Your task to perform on an android device: manage bookmarks in the chrome app Image 0: 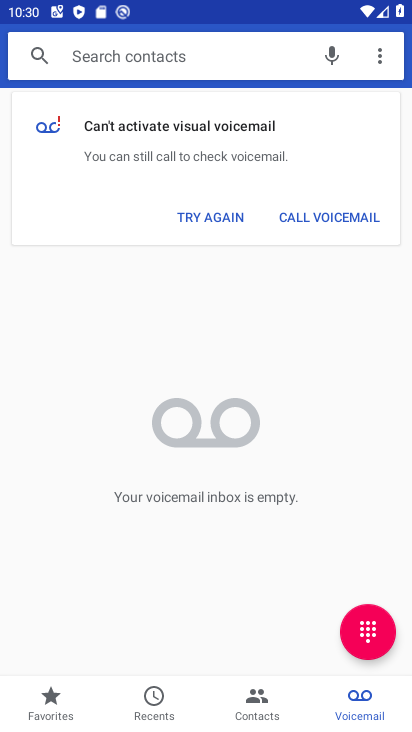
Step 0: press home button
Your task to perform on an android device: manage bookmarks in the chrome app Image 1: 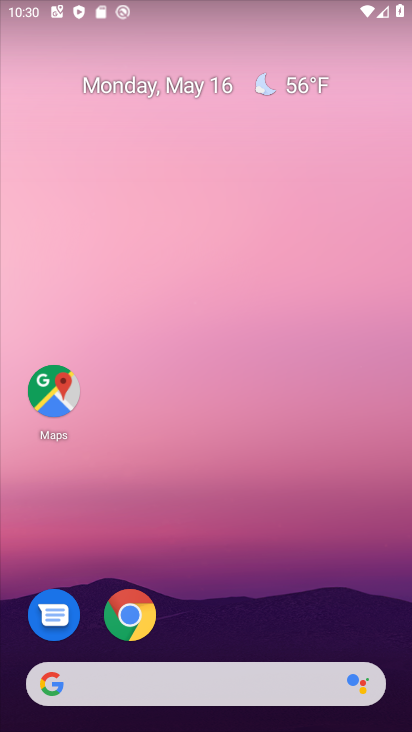
Step 1: drag from (223, 730) to (201, 340)
Your task to perform on an android device: manage bookmarks in the chrome app Image 2: 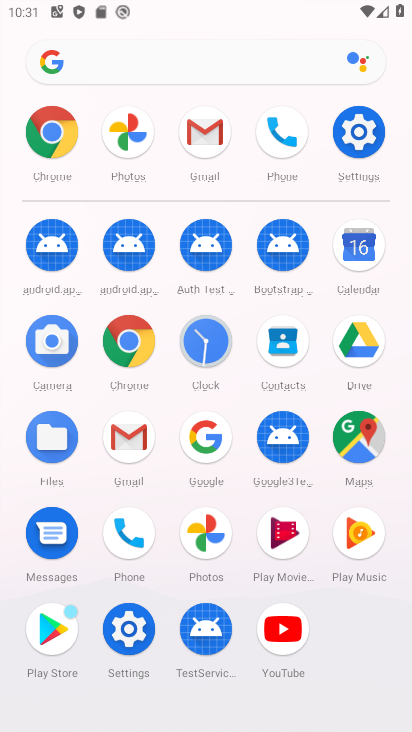
Step 2: click (141, 321)
Your task to perform on an android device: manage bookmarks in the chrome app Image 3: 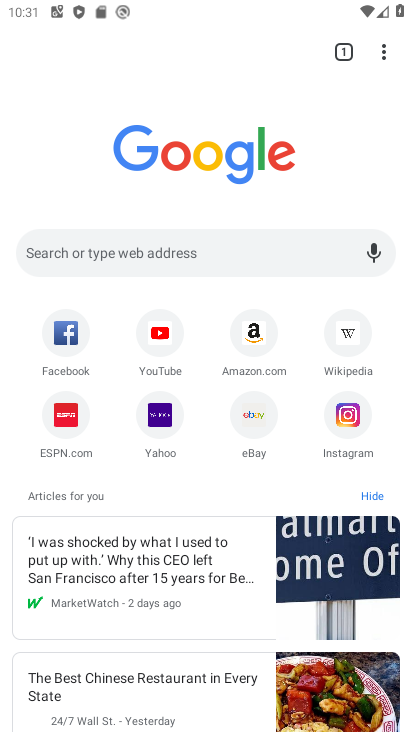
Step 3: click (383, 61)
Your task to perform on an android device: manage bookmarks in the chrome app Image 4: 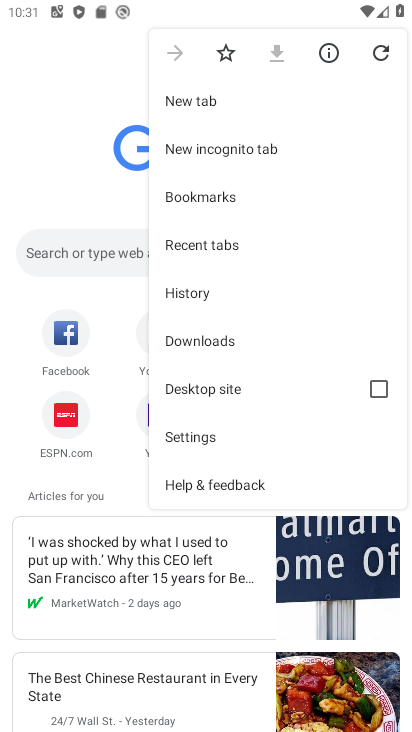
Step 4: click (202, 197)
Your task to perform on an android device: manage bookmarks in the chrome app Image 5: 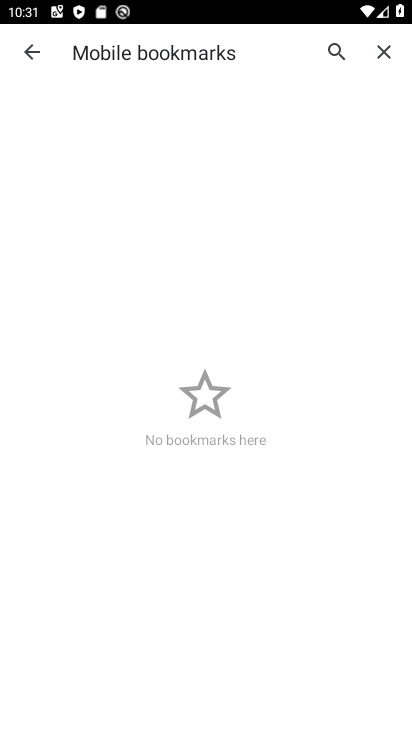
Step 5: task complete